Your task to perform on an android device: Open Google Chrome and click the shortcut for Amazon.com Image 0: 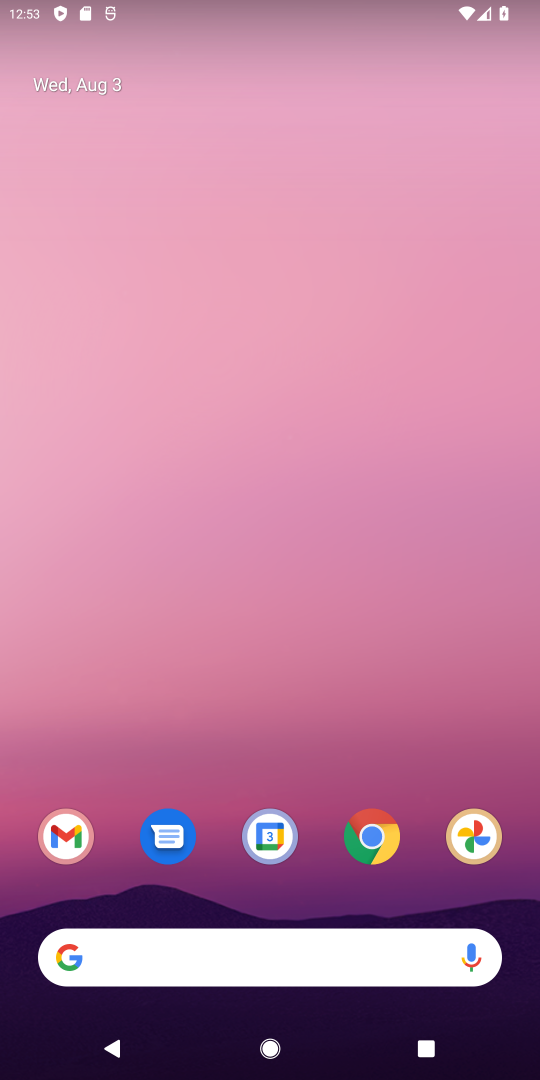
Step 0: drag from (224, 820) to (277, 311)
Your task to perform on an android device: Open Google Chrome and click the shortcut for Amazon.com Image 1: 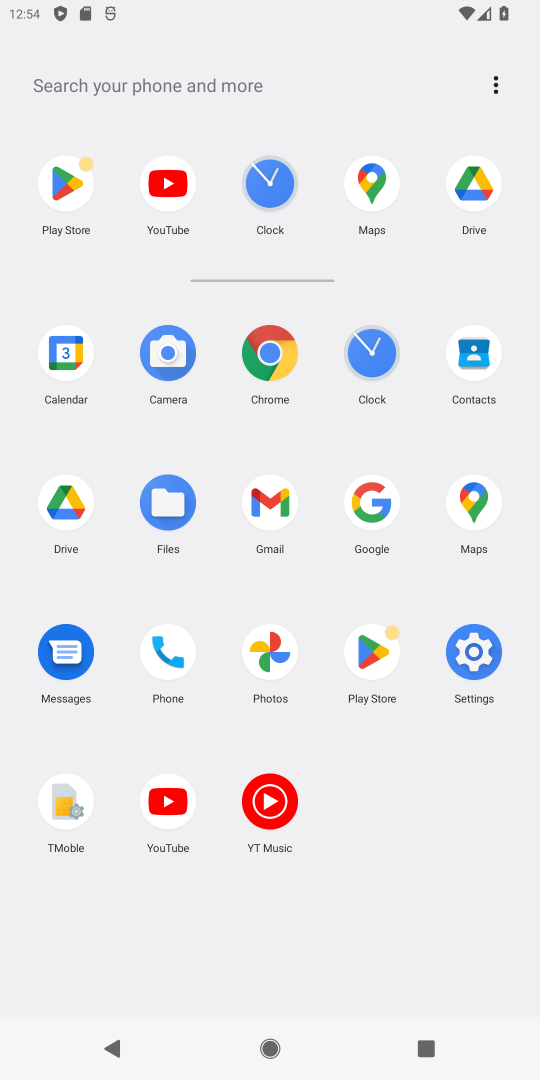
Step 1: drag from (227, 887) to (194, 461)
Your task to perform on an android device: Open Google Chrome and click the shortcut for Amazon.com Image 2: 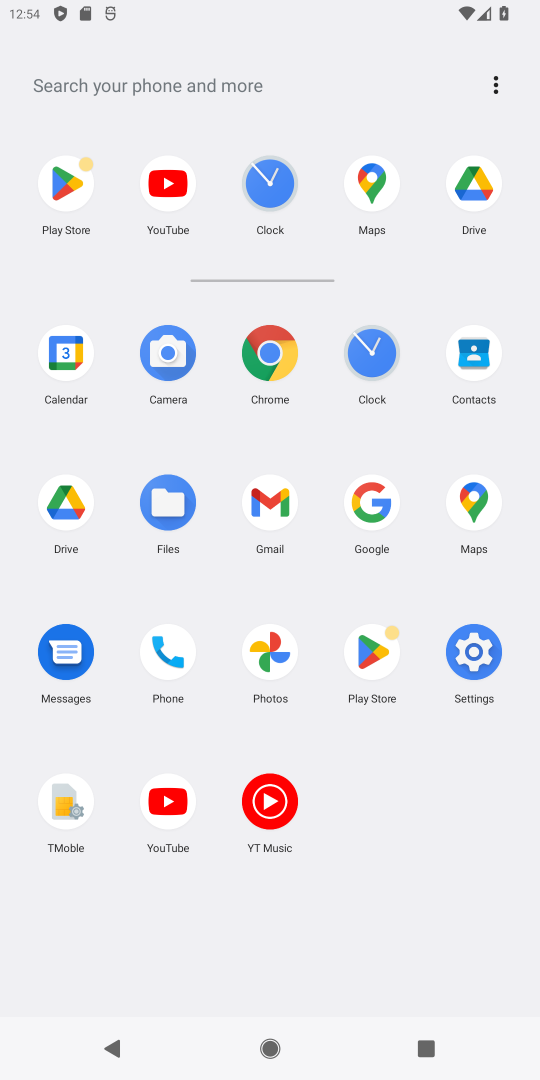
Step 2: click (262, 353)
Your task to perform on an android device: Open Google Chrome and click the shortcut for Amazon.com Image 3: 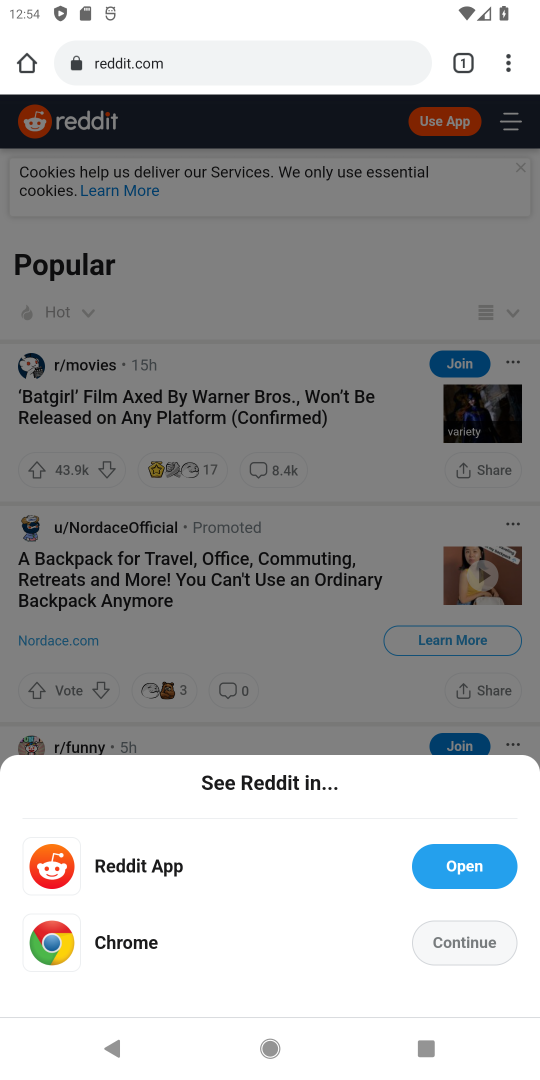
Step 3: drag from (241, 953) to (251, 535)
Your task to perform on an android device: Open Google Chrome and click the shortcut for Amazon.com Image 4: 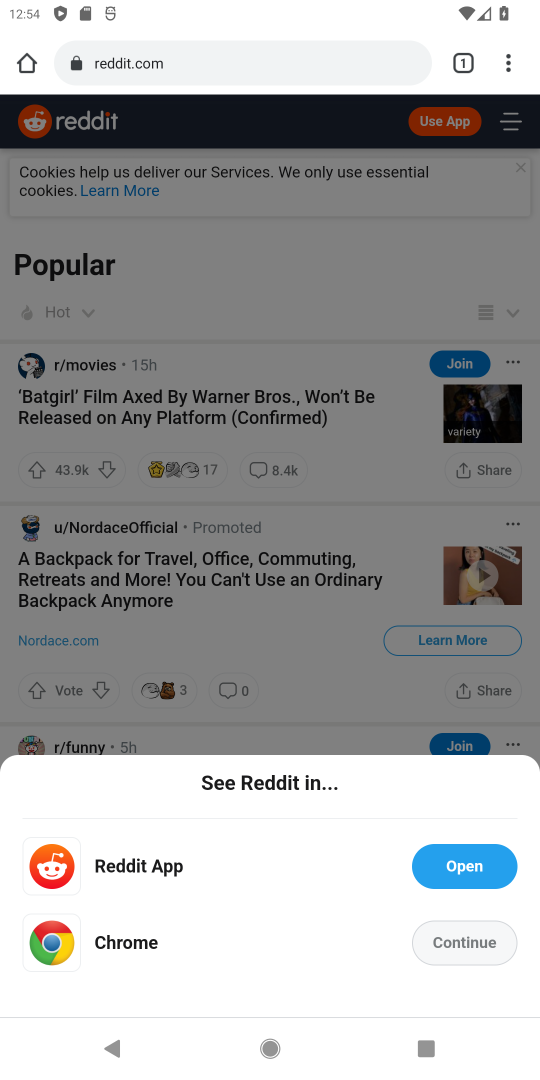
Step 4: click (452, 63)
Your task to perform on an android device: Open Google Chrome and click the shortcut for Amazon.com Image 5: 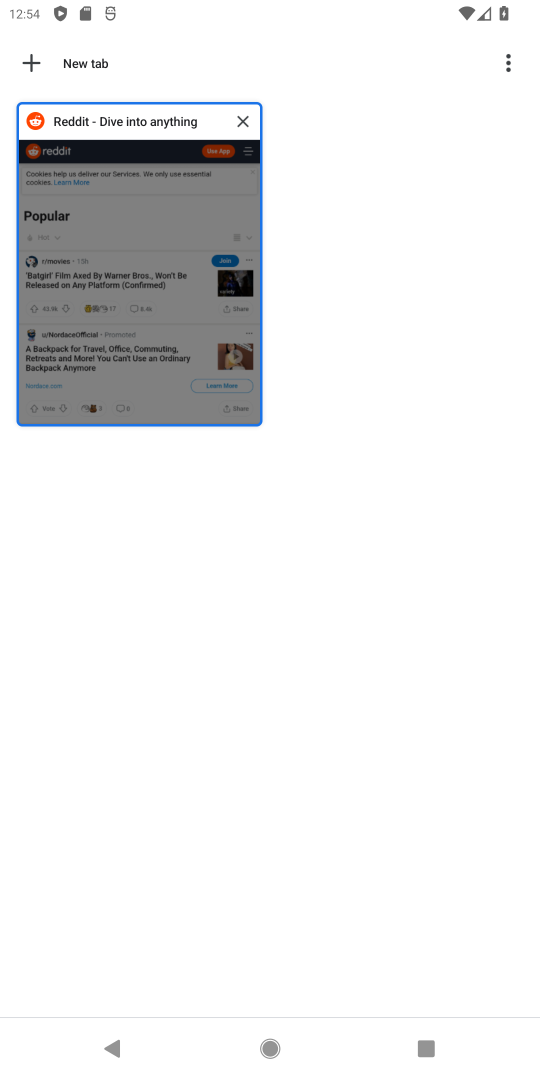
Step 5: click (23, 61)
Your task to perform on an android device: Open Google Chrome and click the shortcut for Amazon.com Image 6: 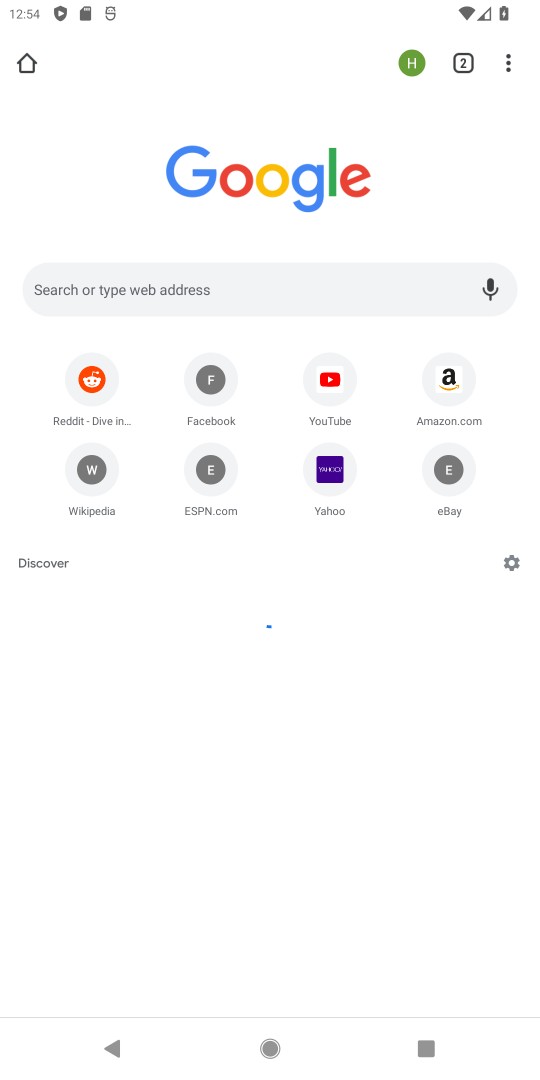
Step 6: click (444, 378)
Your task to perform on an android device: Open Google Chrome and click the shortcut for Amazon.com Image 7: 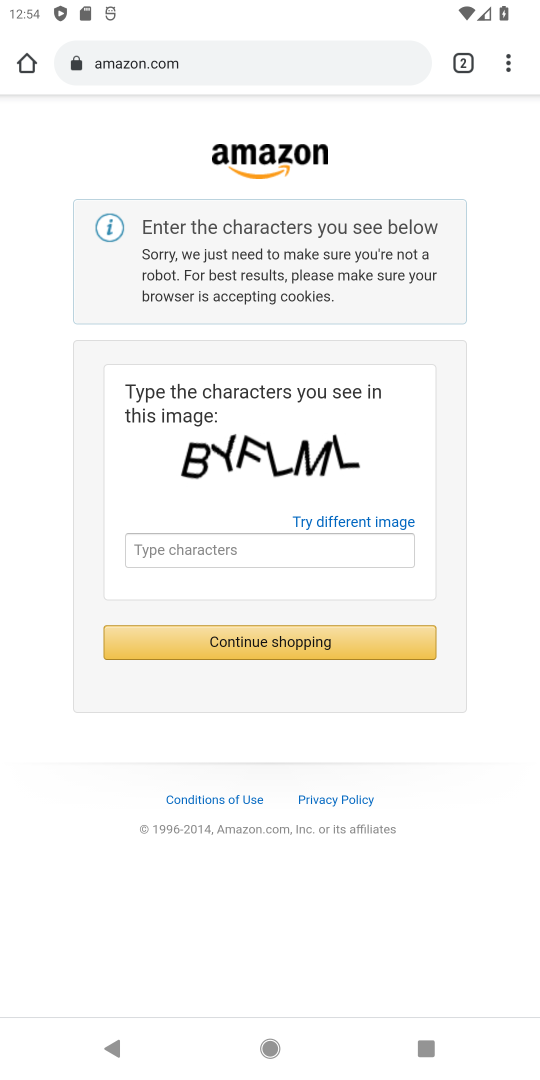
Step 7: task complete